Your task to perform on an android device: turn off translation in the chrome app Image 0: 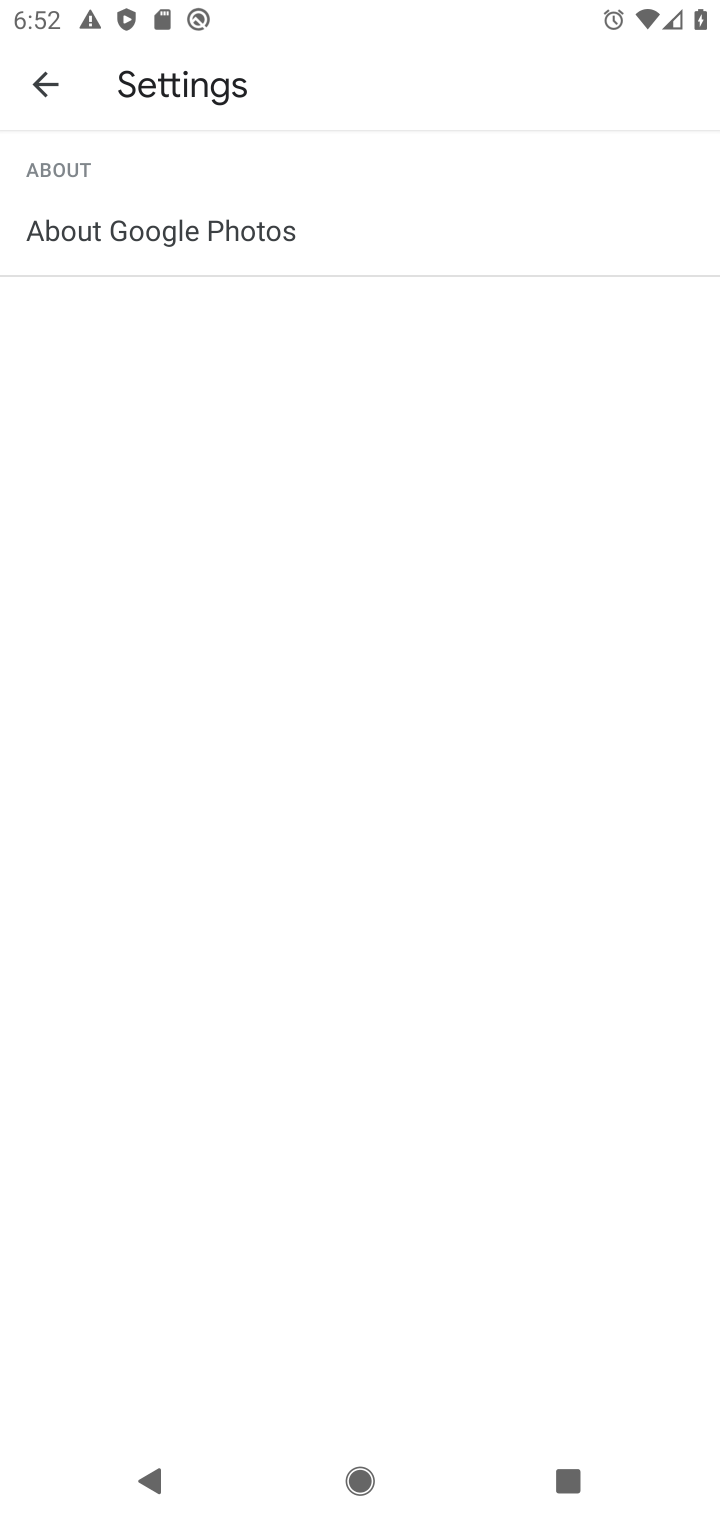
Step 0: press home button
Your task to perform on an android device: turn off translation in the chrome app Image 1: 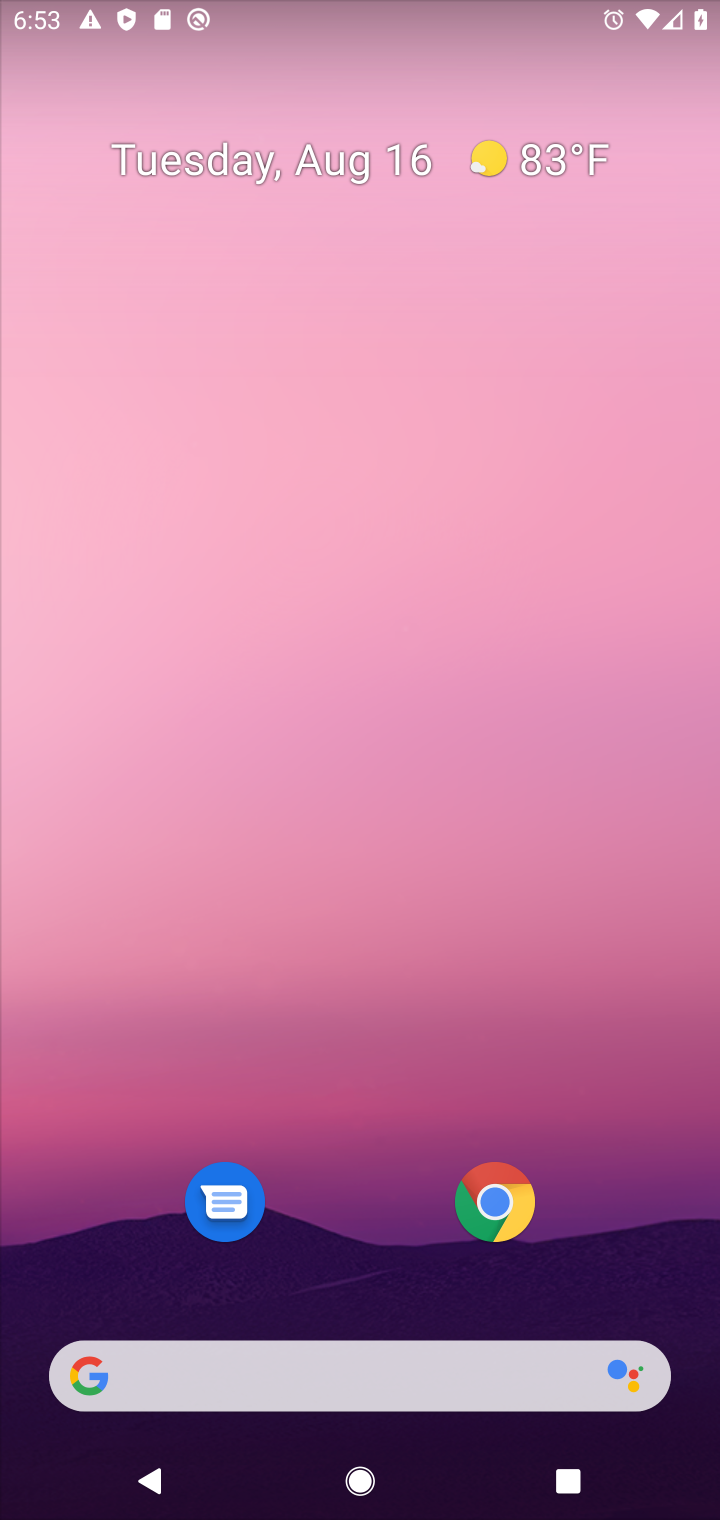
Step 1: drag from (654, 1256) to (360, 94)
Your task to perform on an android device: turn off translation in the chrome app Image 2: 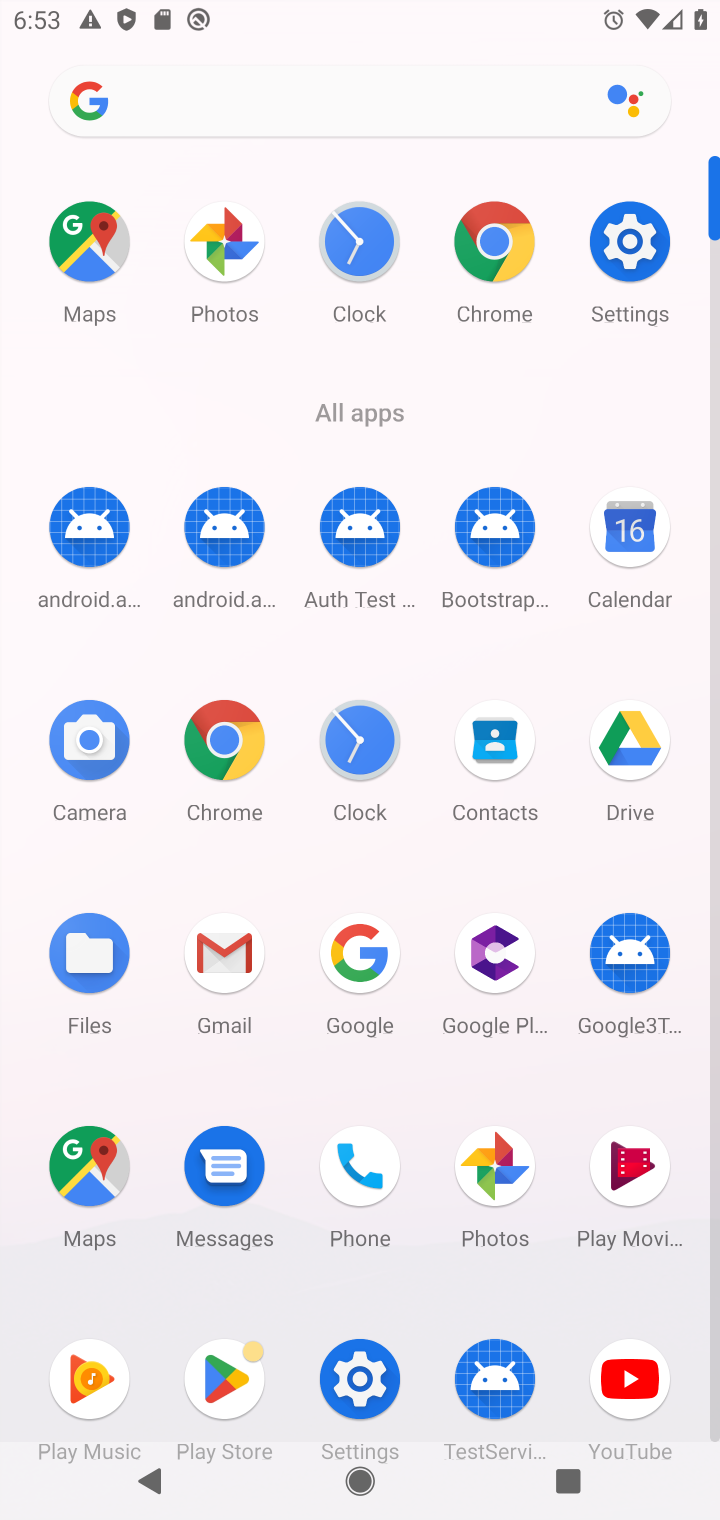
Step 2: click (235, 693)
Your task to perform on an android device: turn off translation in the chrome app Image 3: 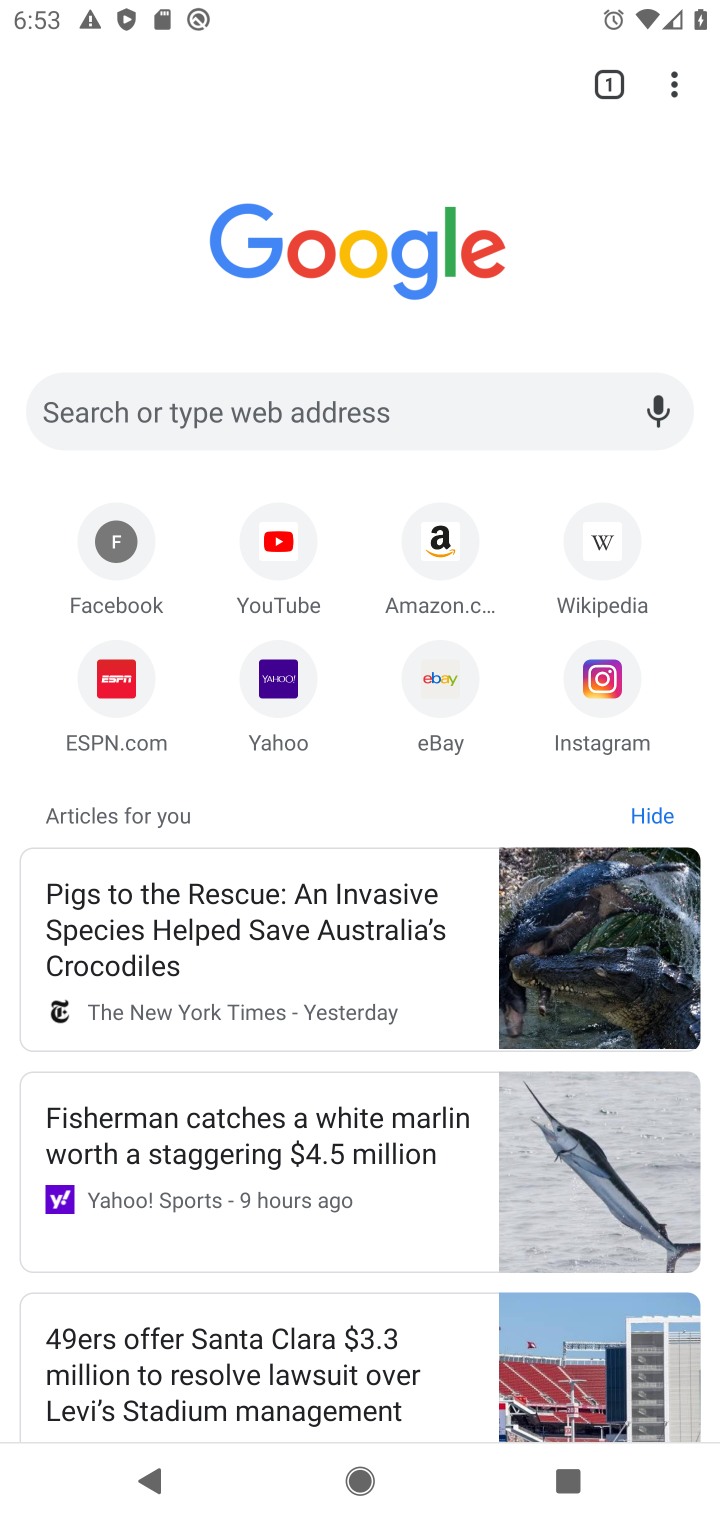
Step 3: click (668, 65)
Your task to perform on an android device: turn off translation in the chrome app Image 4: 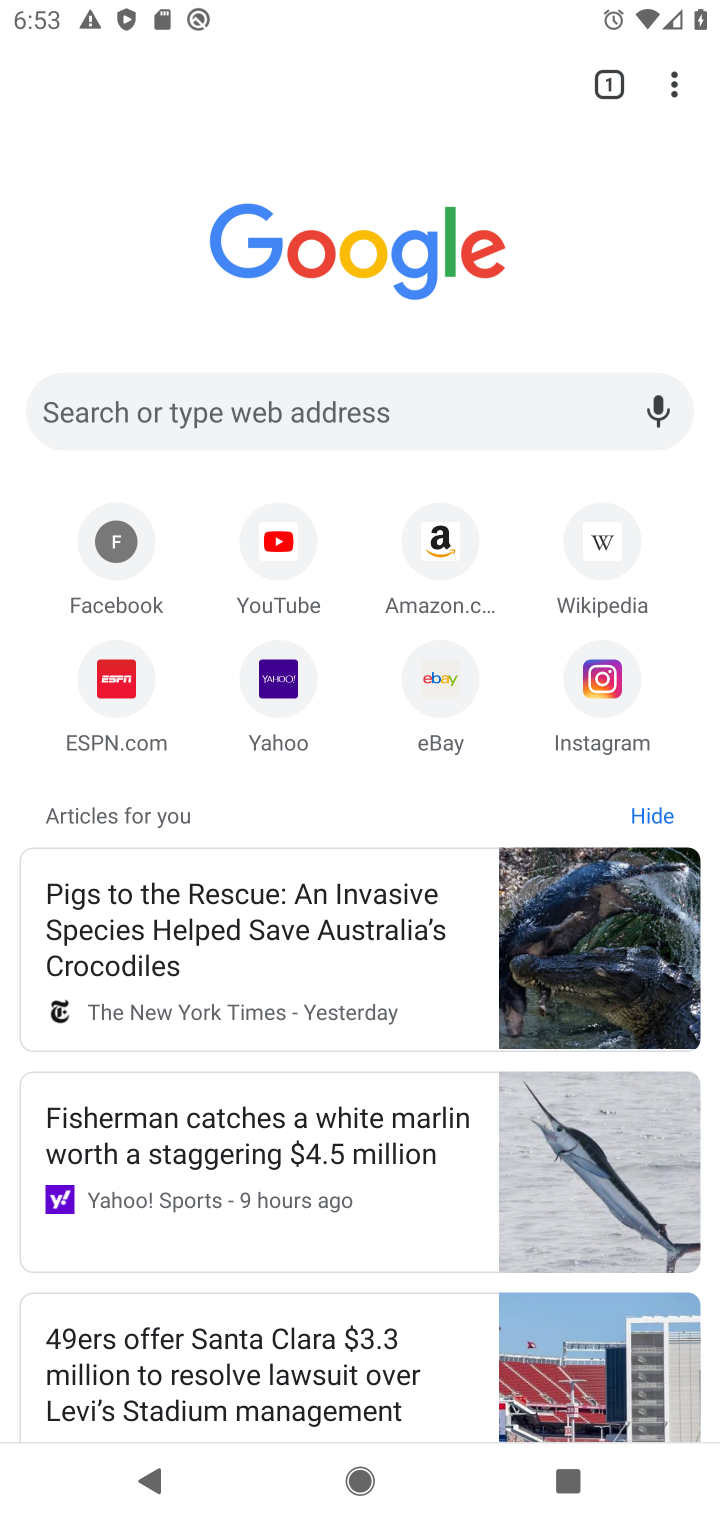
Step 4: click (672, 82)
Your task to perform on an android device: turn off translation in the chrome app Image 5: 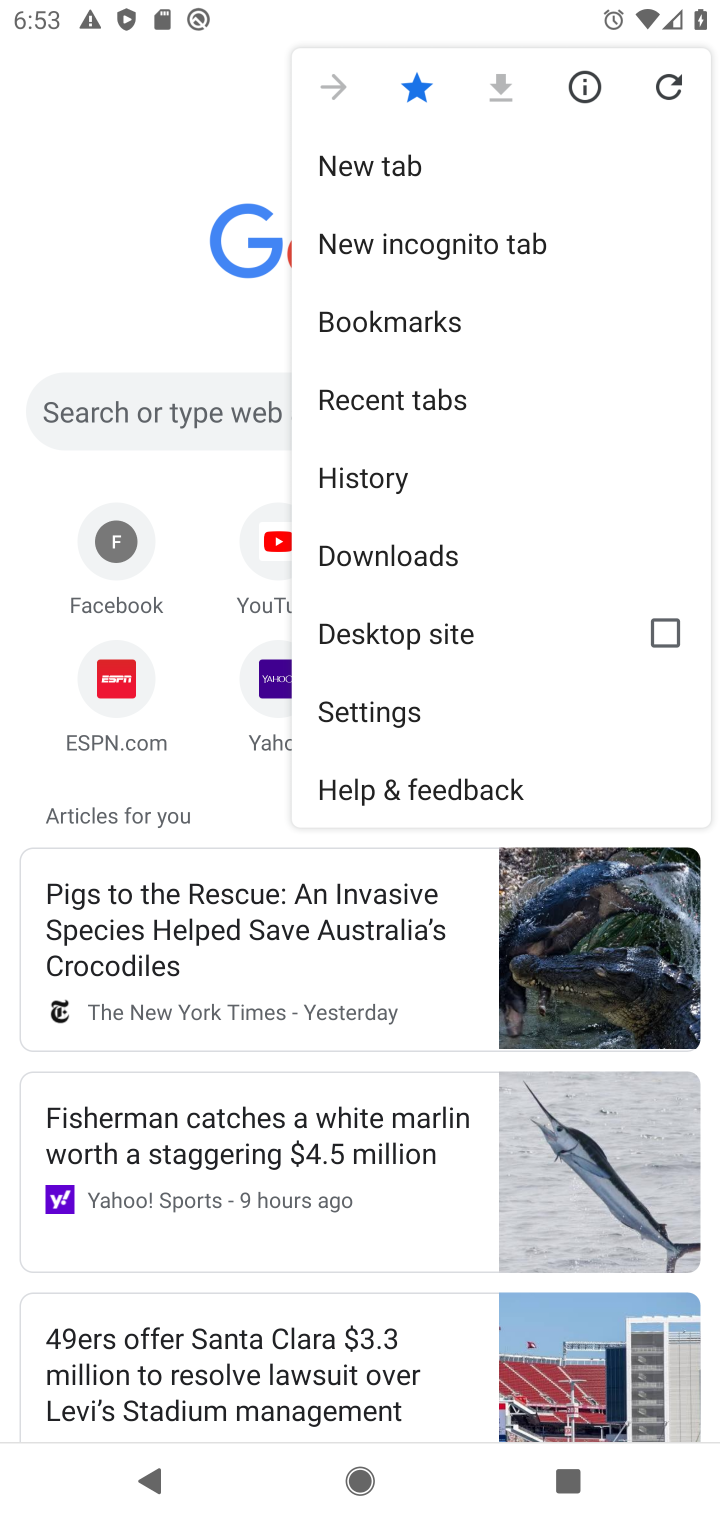
Step 5: click (400, 718)
Your task to perform on an android device: turn off translation in the chrome app Image 6: 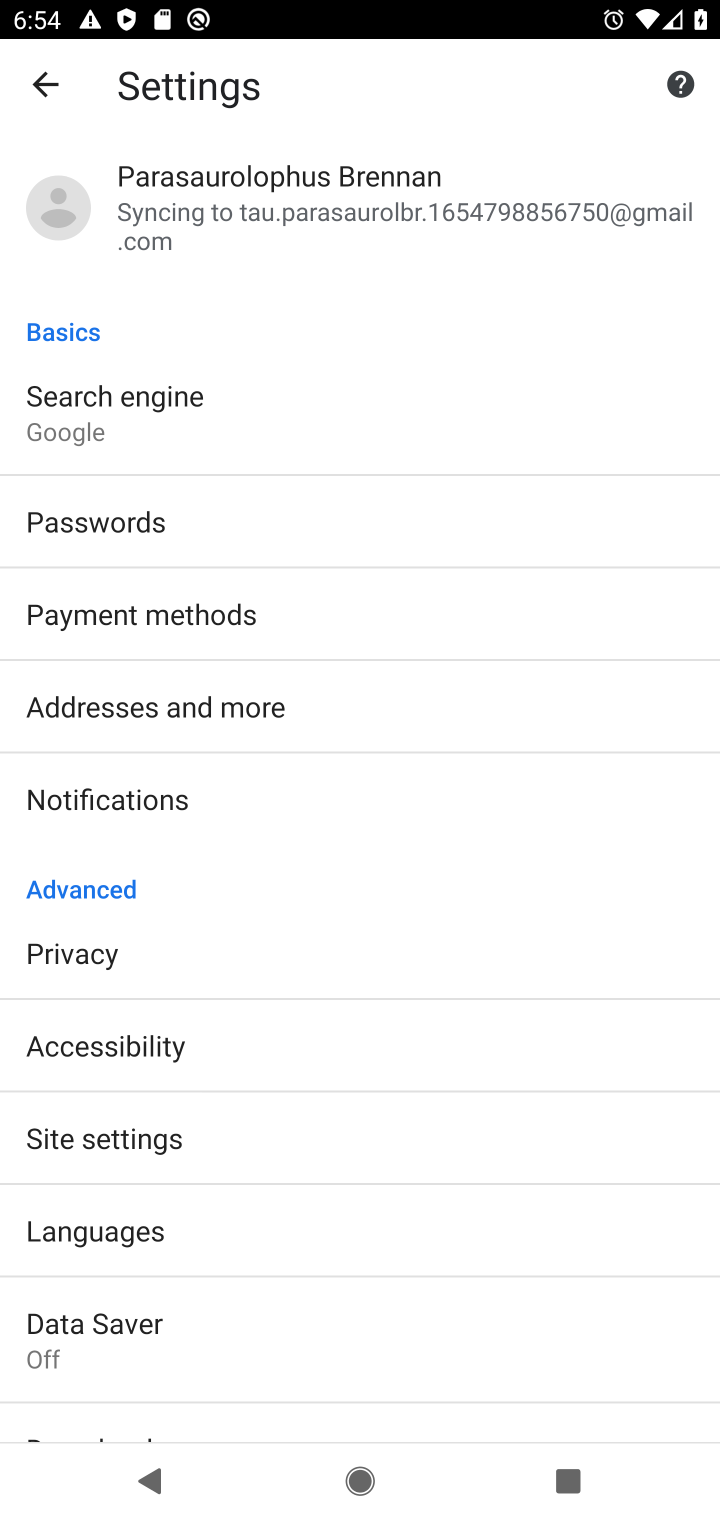
Step 6: click (154, 1228)
Your task to perform on an android device: turn off translation in the chrome app Image 7: 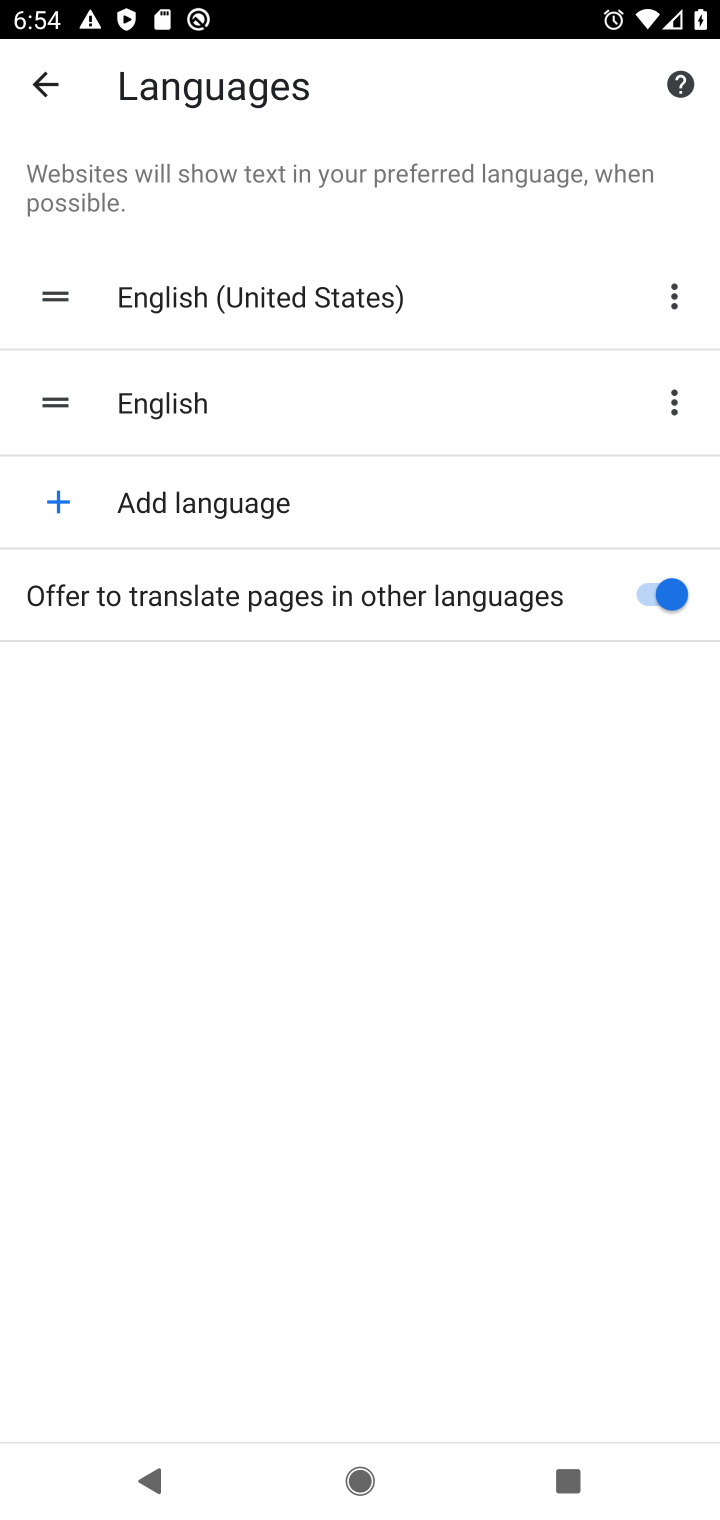
Step 7: click (654, 617)
Your task to perform on an android device: turn off translation in the chrome app Image 8: 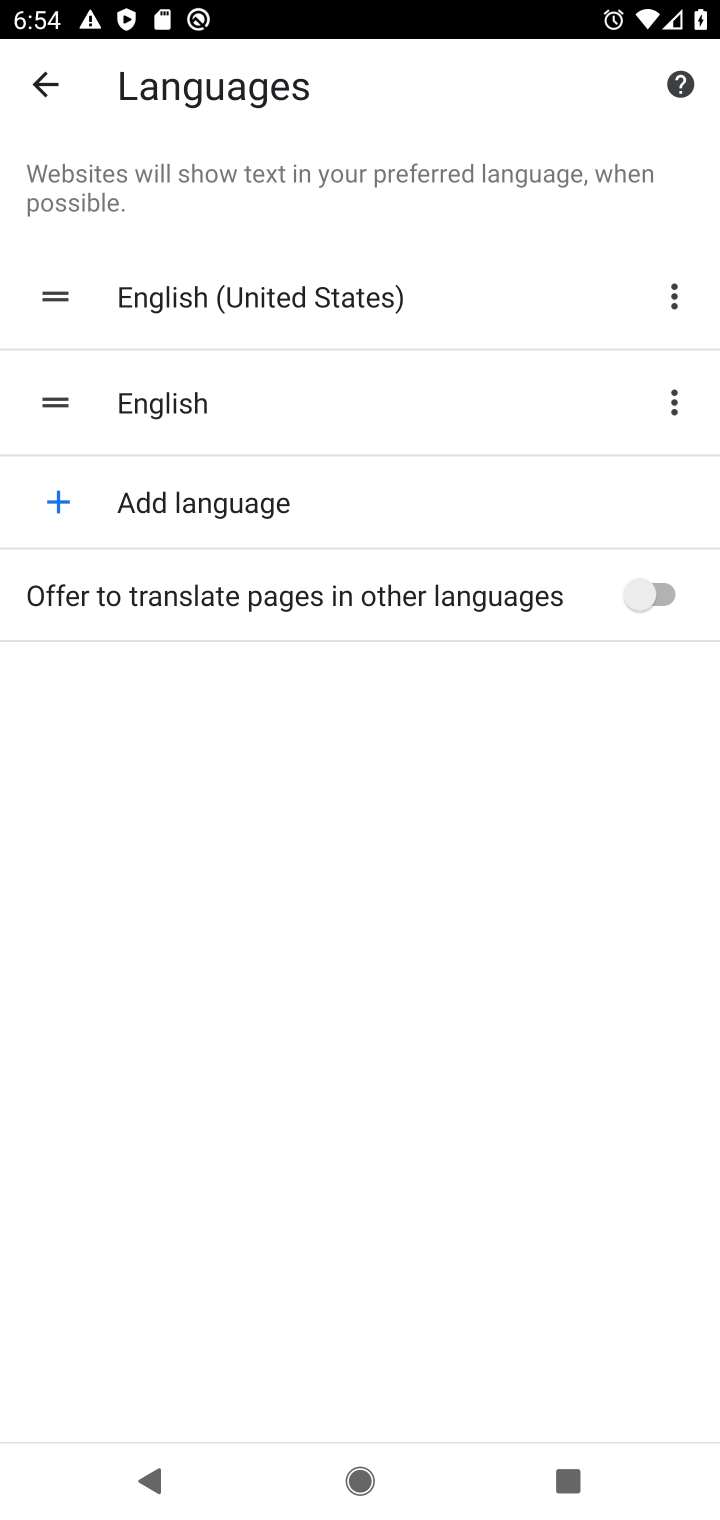
Step 8: task complete